Your task to perform on an android device: Open CNN.com Image 0: 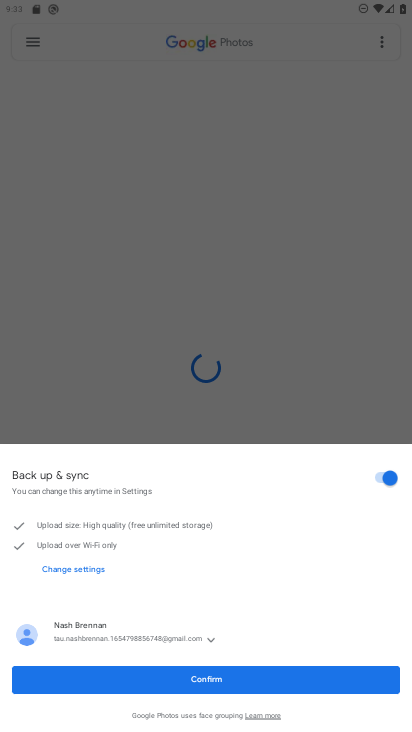
Step 0: press back button
Your task to perform on an android device: Open CNN.com Image 1: 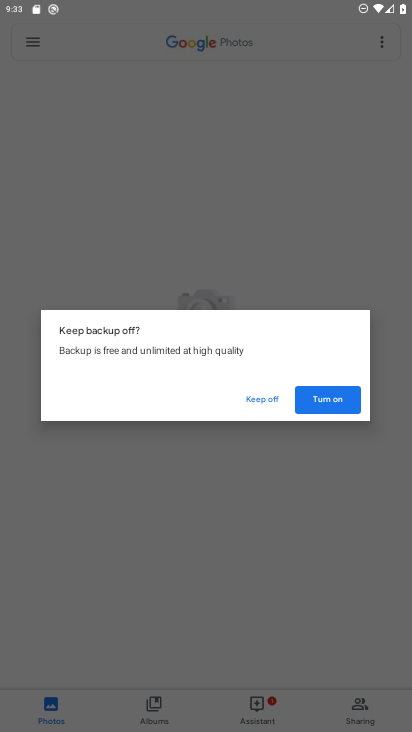
Step 1: press back button
Your task to perform on an android device: Open CNN.com Image 2: 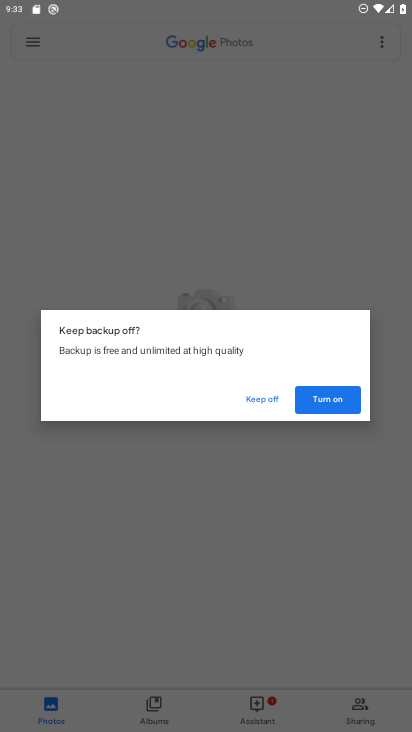
Step 2: press home button
Your task to perform on an android device: Open CNN.com Image 3: 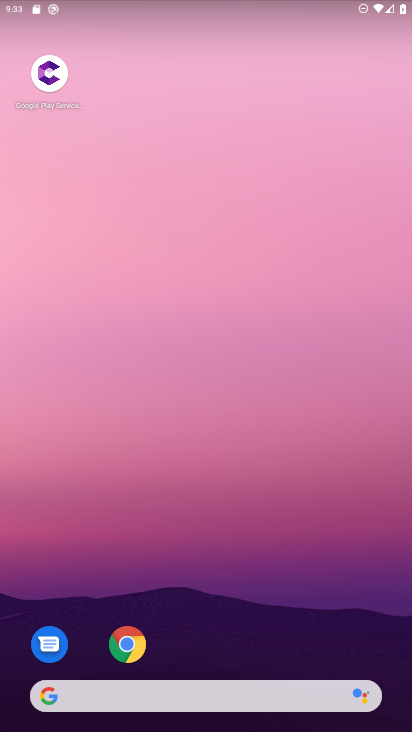
Step 3: click (127, 634)
Your task to perform on an android device: Open CNN.com Image 4: 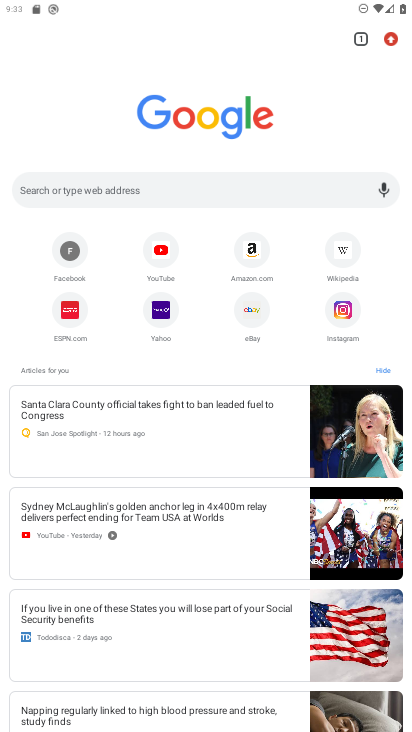
Step 4: click (168, 185)
Your task to perform on an android device: Open CNN.com Image 5: 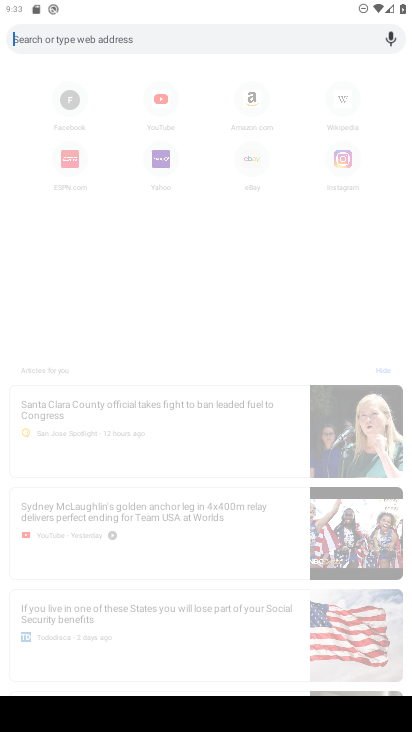
Step 5: type "cnn"
Your task to perform on an android device: Open CNN.com Image 6: 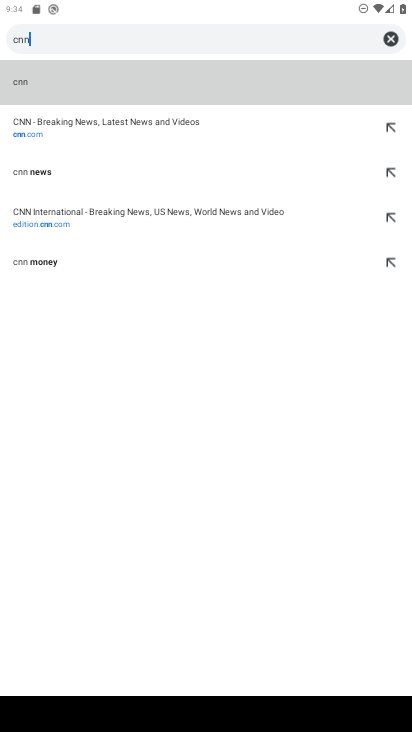
Step 6: click (54, 77)
Your task to perform on an android device: Open CNN.com Image 7: 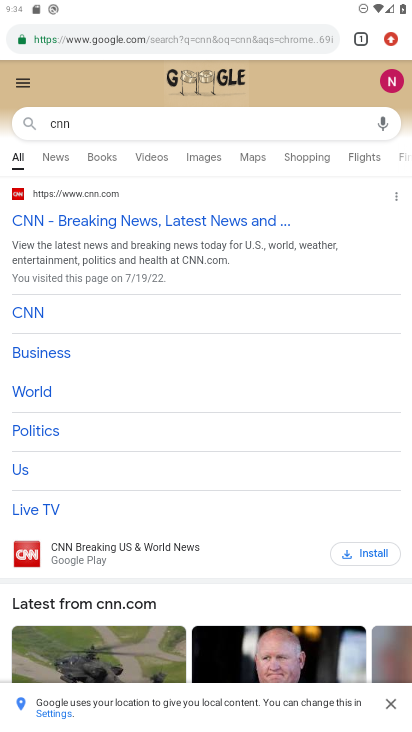
Step 7: click (166, 219)
Your task to perform on an android device: Open CNN.com Image 8: 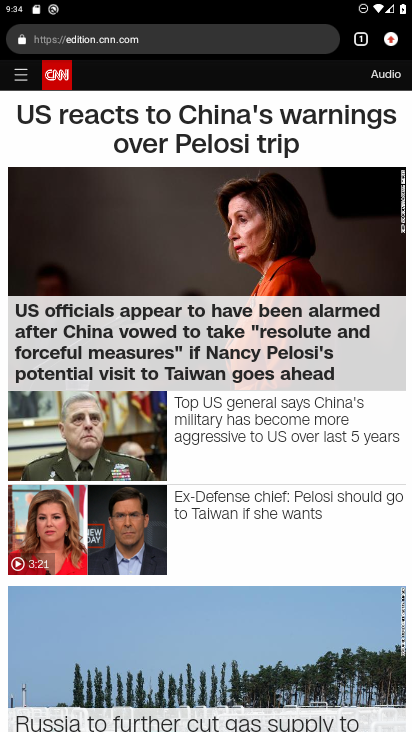
Step 8: task complete